Your task to perform on an android device: Open eBay Image 0: 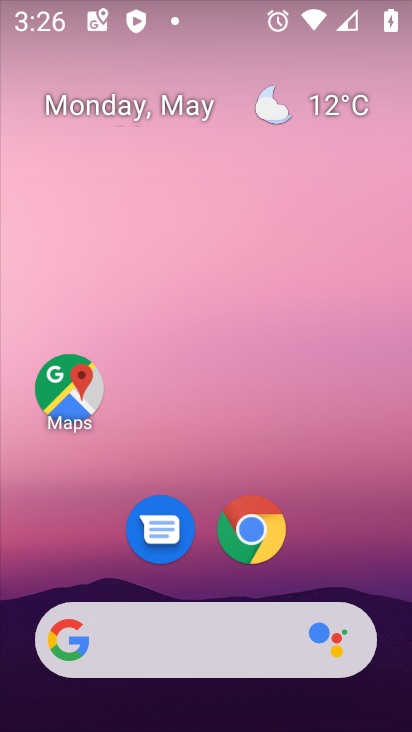
Step 0: click (245, 538)
Your task to perform on an android device: Open eBay Image 1: 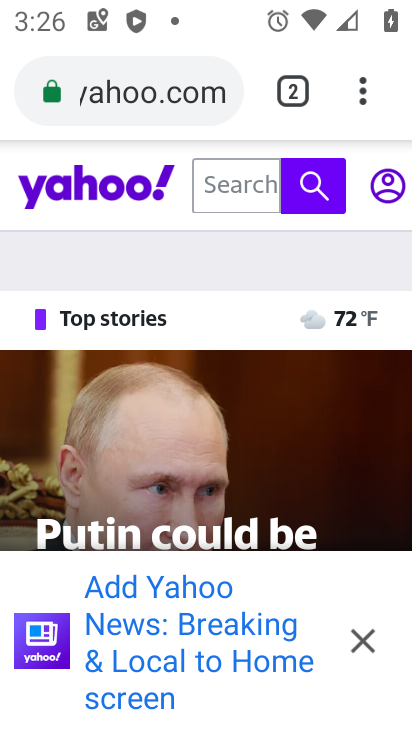
Step 1: click (151, 110)
Your task to perform on an android device: Open eBay Image 2: 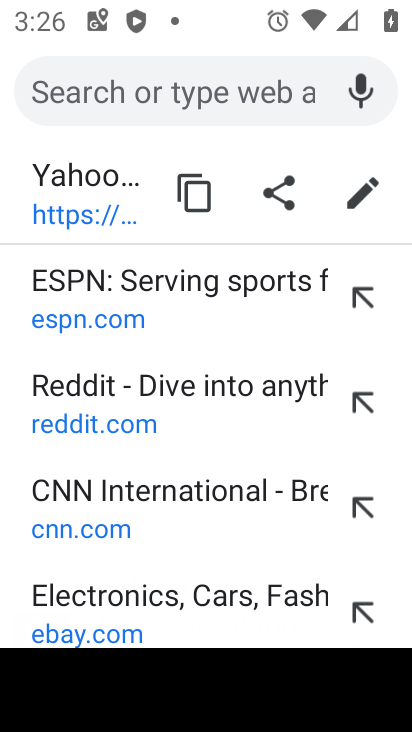
Step 2: type "ebay"
Your task to perform on an android device: Open eBay Image 3: 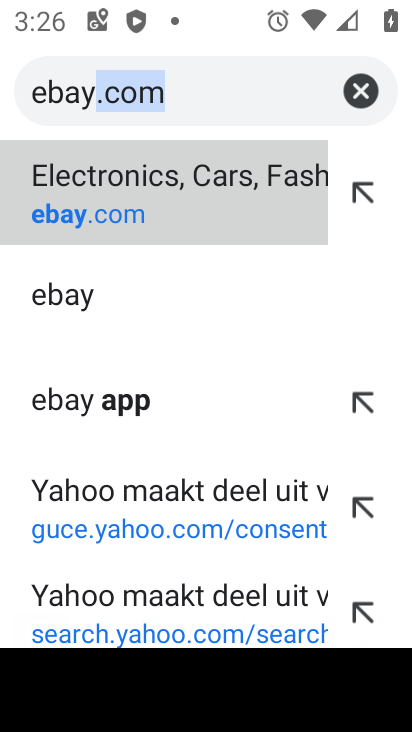
Step 3: click (95, 223)
Your task to perform on an android device: Open eBay Image 4: 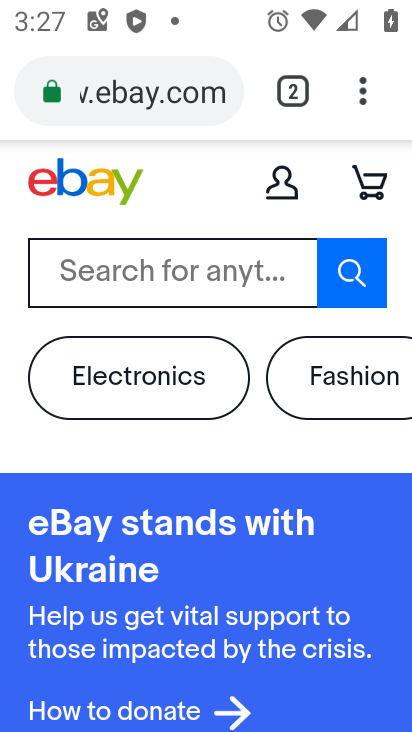
Step 4: task complete